Your task to perform on an android device: What's the weather going to be tomorrow? Image 0: 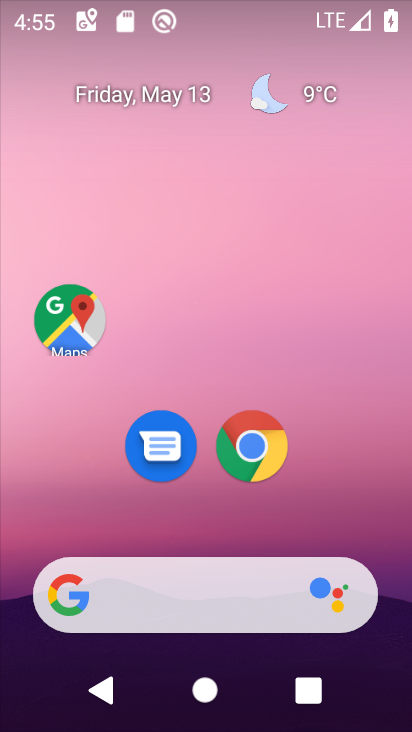
Step 0: drag from (215, 530) to (234, 39)
Your task to perform on an android device: What's the weather going to be tomorrow? Image 1: 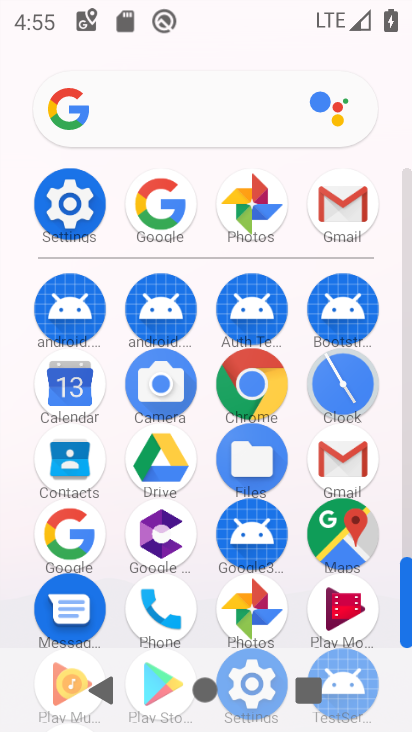
Step 1: click (172, 118)
Your task to perform on an android device: What's the weather going to be tomorrow? Image 2: 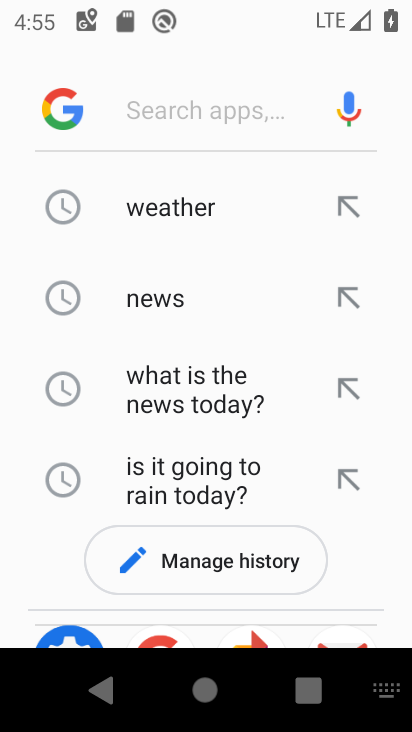
Step 2: type "what's the weather going to be tomorrow"
Your task to perform on an android device: What's the weather going to be tomorrow? Image 3: 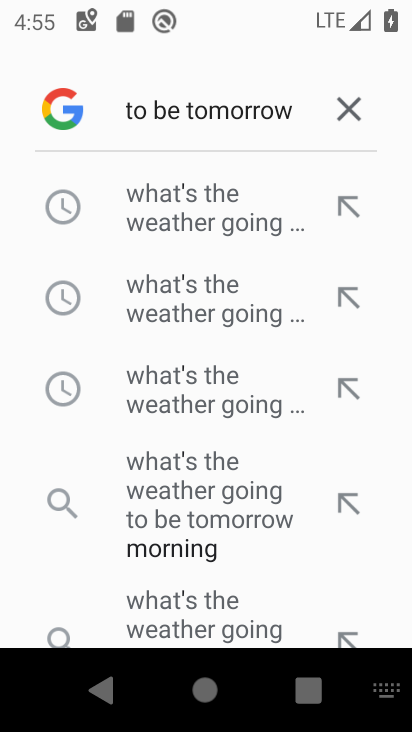
Step 3: click (255, 215)
Your task to perform on an android device: What's the weather going to be tomorrow? Image 4: 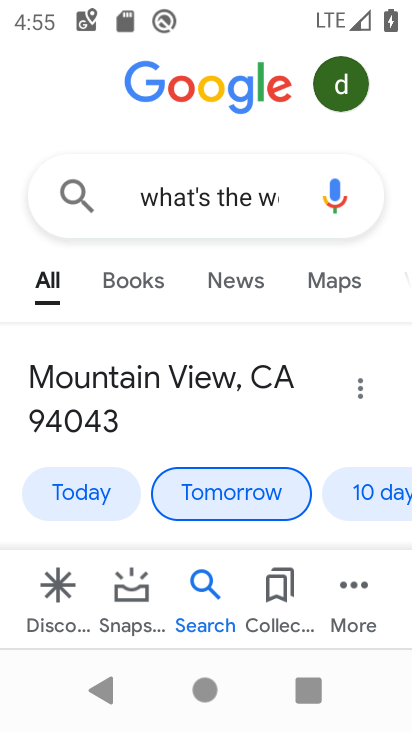
Step 4: task complete